Your task to perform on an android device: toggle sleep mode Image 0: 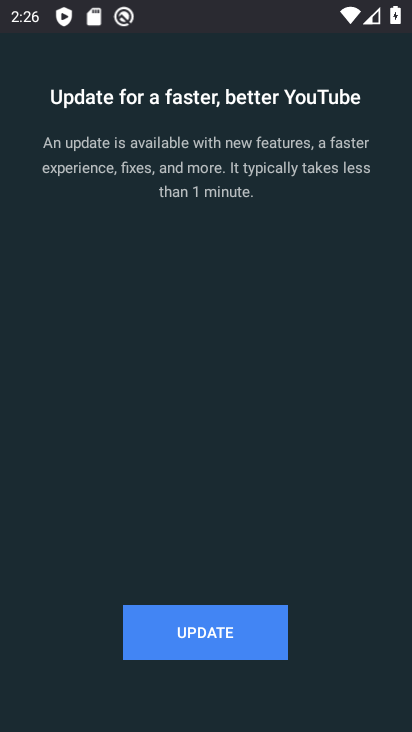
Step 0: press home button
Your task to perform on an android device: toggle sleep mode Image 1: 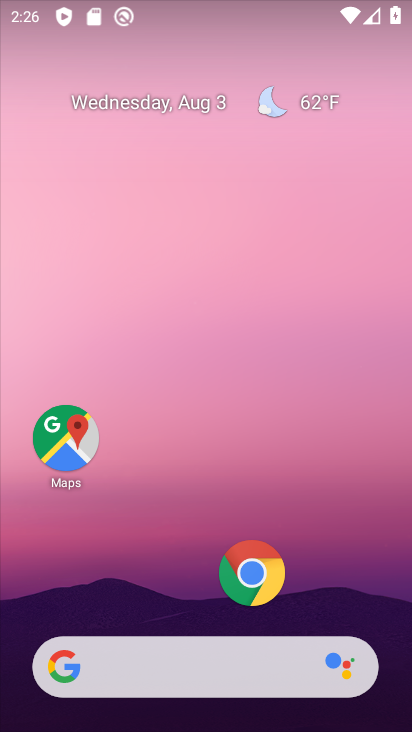
Step 1: drag from (171, 438) to (189, 189)
Your task to perform on an android device: toggle sleep mode Image 2: 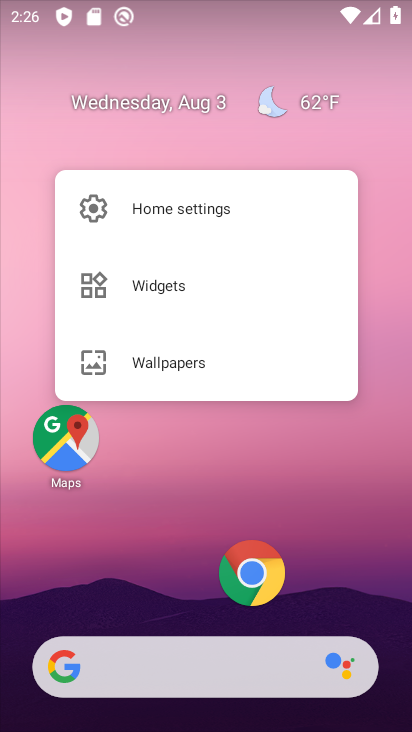
Step 2: click (164, 570)
Your task to perform on an android device: toggle sleep mode Image 3: 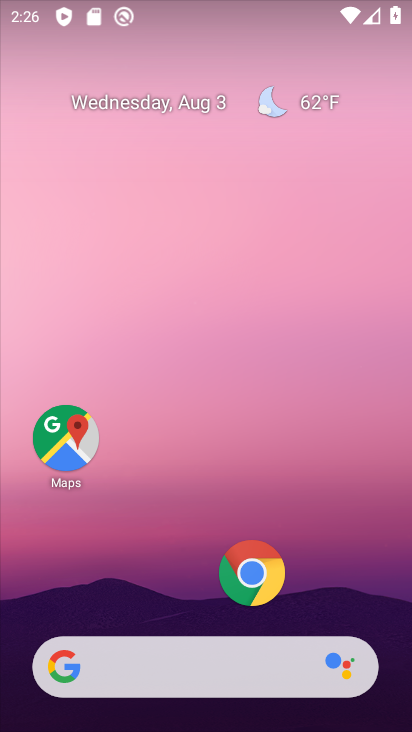
Step 3: drag from (152, 595) to (173, 125)
Your task to perform on an android device: toggle sleep mode Image 4: 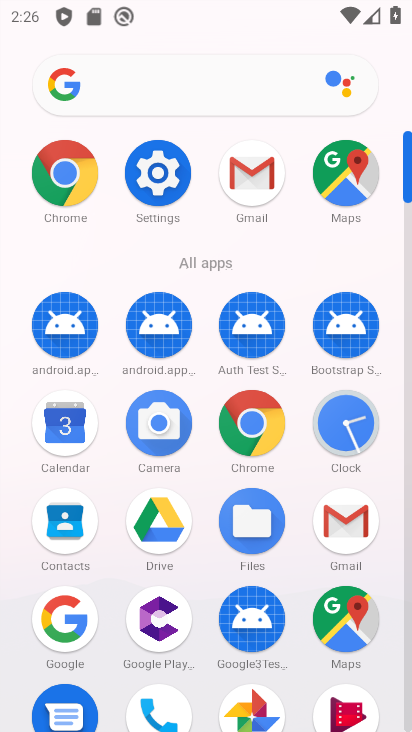
Step 4: click (161, 187)
Your task to perform on an android device: toggle sleep mode Image 5: 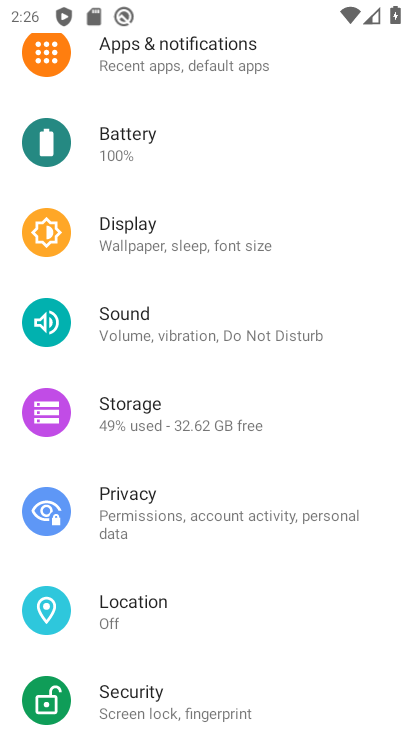
Step 5: drag from (169, 178) to (169, 509)
Your task to perform on an android device: toggle sleep mode Image 6: 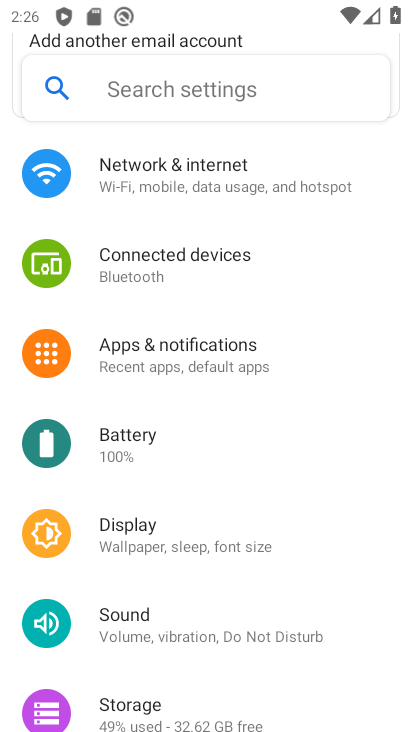
Step 6: click (215, 89)
Your task to perform on an android device: toggle sleep mode Image 7: 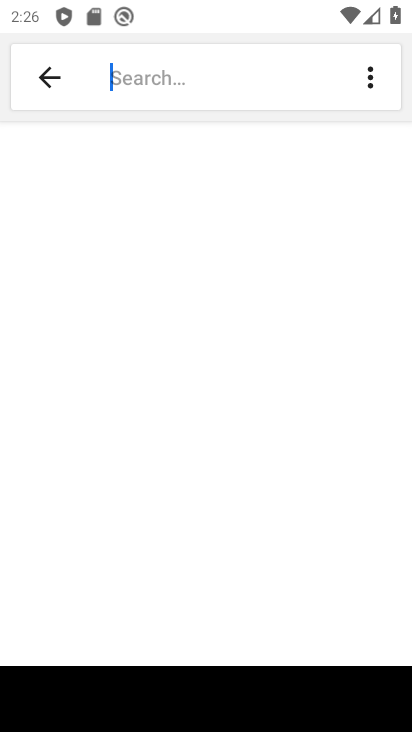
Step 7: type "sleep mode"
Your task to perform on an android device: toggle sleep mode Image 8: 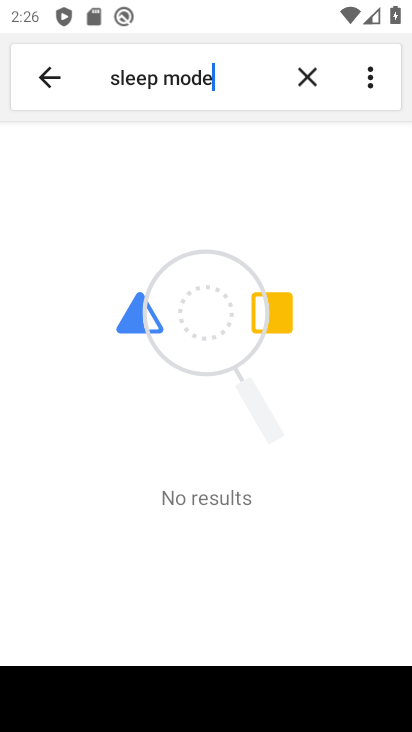
Step 8: task complete